Your task to perform on an android device: When is my next meeting? Image 0: 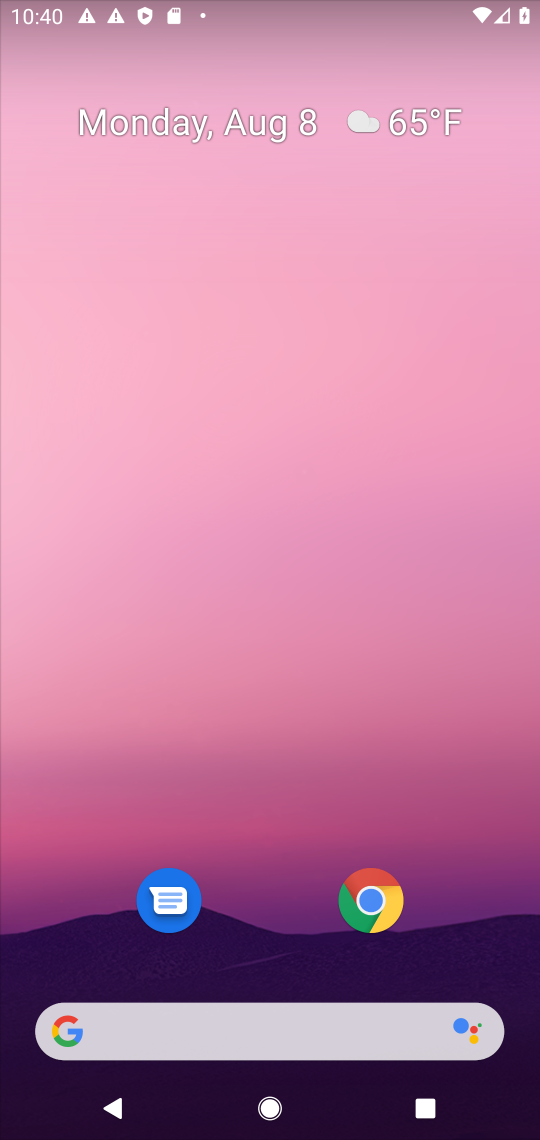
Step 0: drag from (262, 947) to (256, 303)
Your task to perform on an android device: When is my next meeting? Image 1: 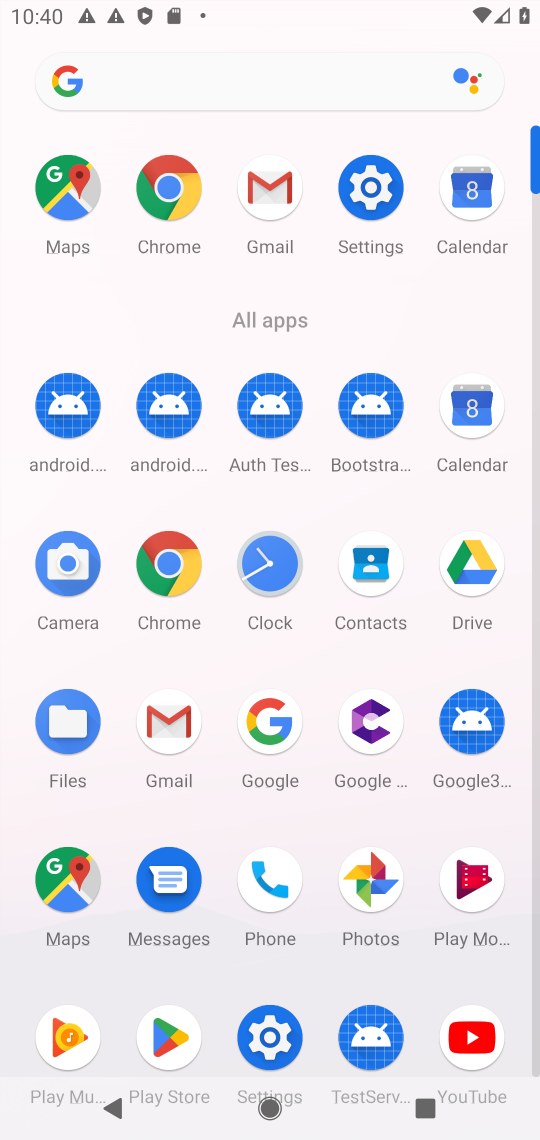
Step 1: click (468, 462)
Your task to perform on an android device: When is my next meeting? Image 2: 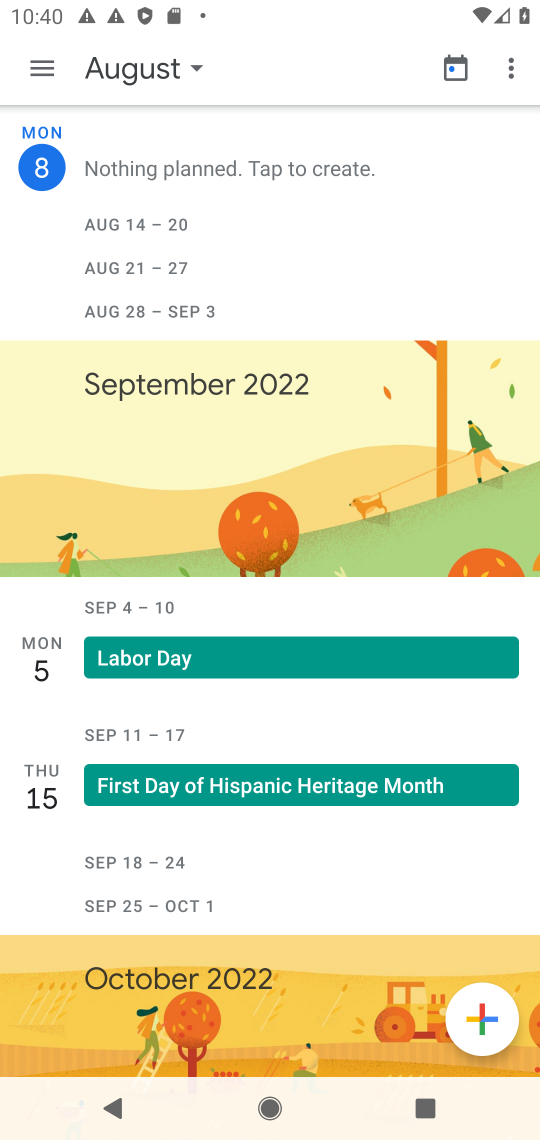
Step 2: task complete